Your task to perform on an android device: Open sound settings Image 0: 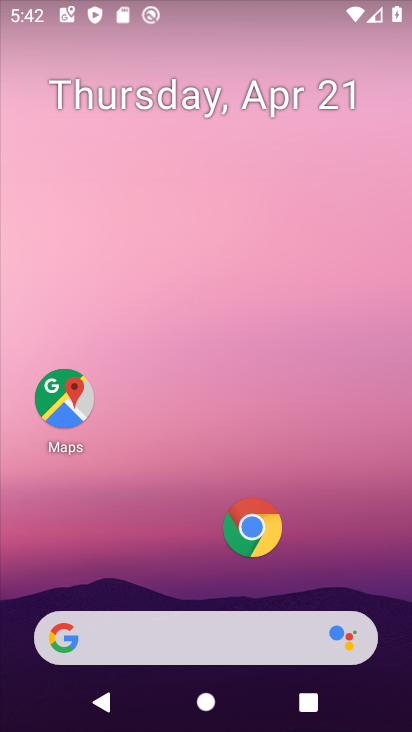
Step 0: drag from (180, 571) to (330, 4)
Your task to perform on an android device: Open sound settings Image 1: 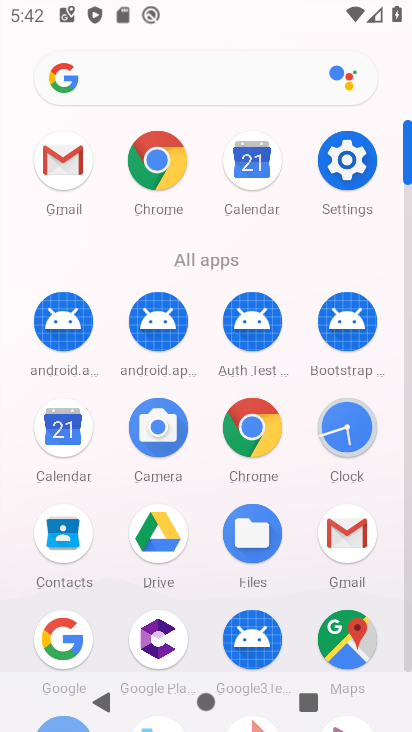
Step 1: click (356, 145)
Your task to perform on an android device: Open sound settings Image 2: 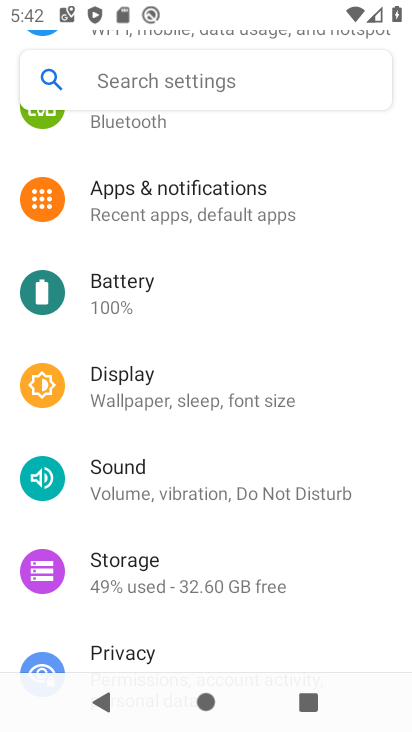
Step 2: click (170, 473)
Your task to perform on an android device: Open sound settings Image 3: 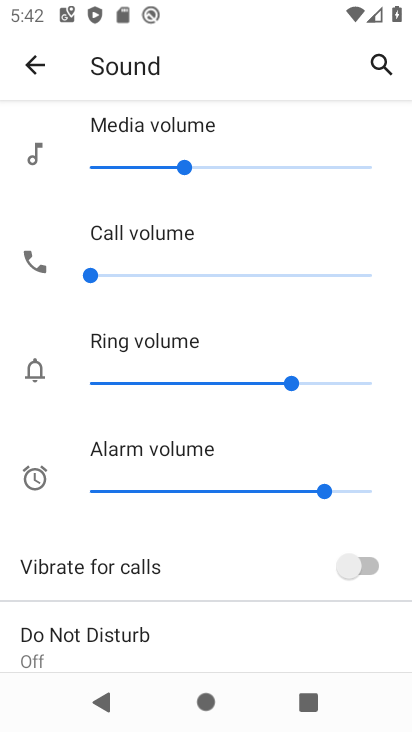
Step 3: task complete